Your task to perform on an android device: change the clock style Image 0: 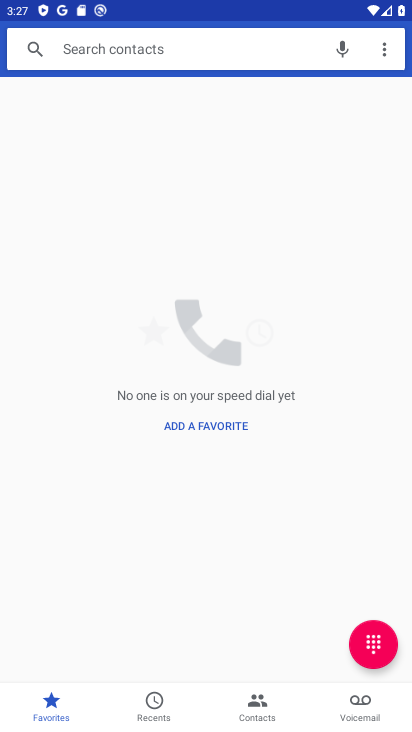
Step 0: press home button
Your task to perform on an android device: change the clock style Image 1: 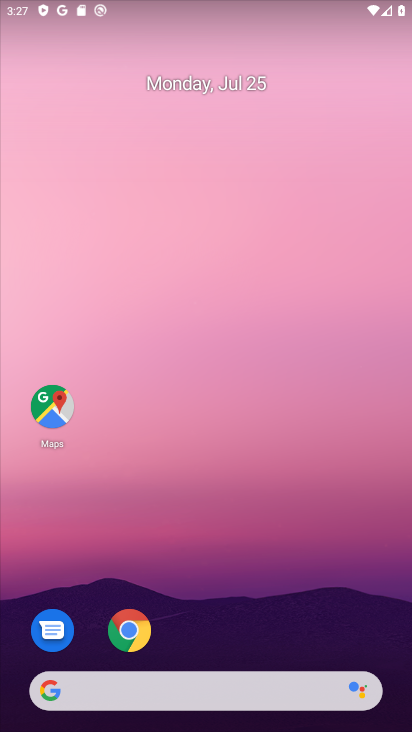
Step 1: drag from (165, 695) to (234, 124)
Your task to perform on an android device: change the clock style Image 2: 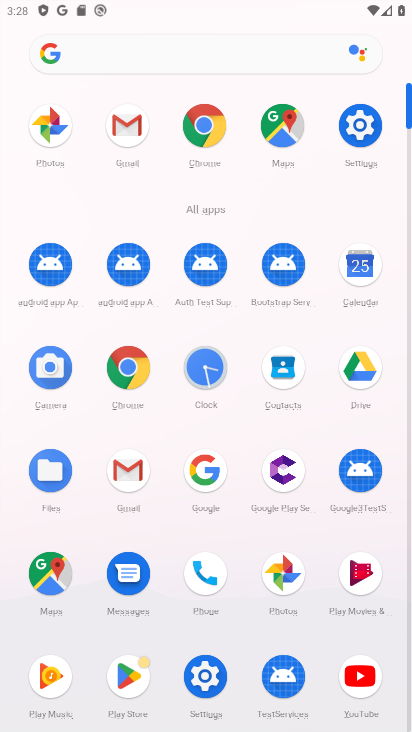
Step 2: click (203, 367)
Your task to perform on an android device: change the clock style Image 3: 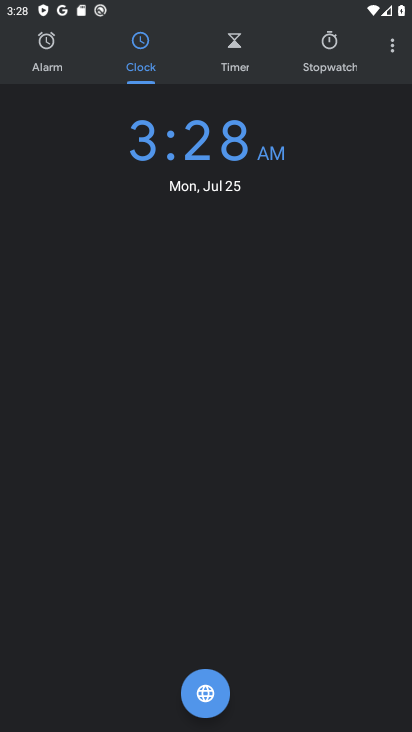
Step 3: click (392, 44)
Your task to perform on an android device: change the clock style Image 4: 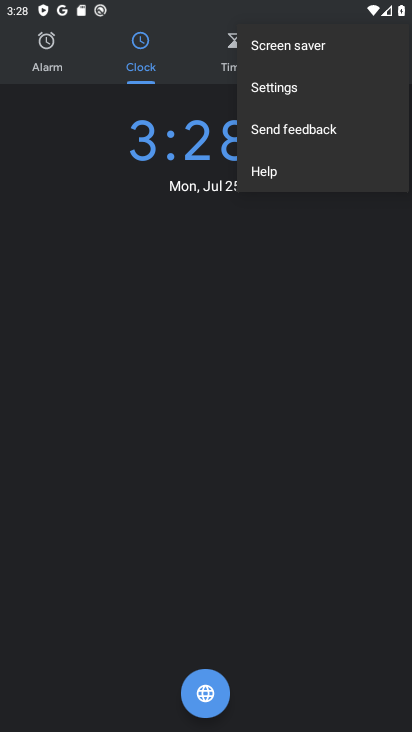
Step 4: click (288, 94)
Your task to perform on an android device: change the clock style Image 5: 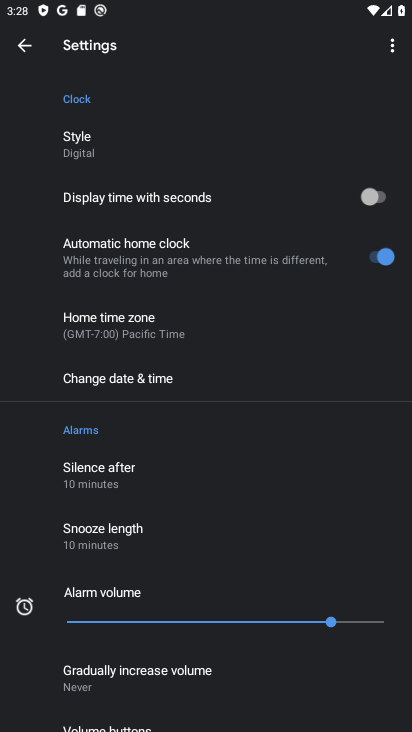
Step 5: click (94, 159)
Your task to perform on an android device: change the clock style Image 6: 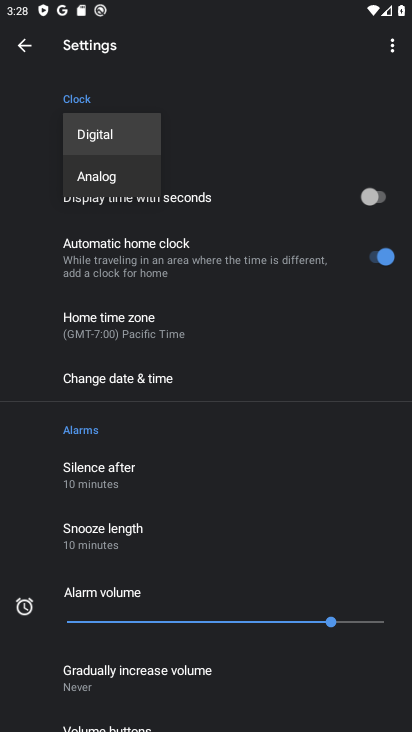
Step 6: click (88, 172)
Your task to perform on an android device: change the clock style Image 7: 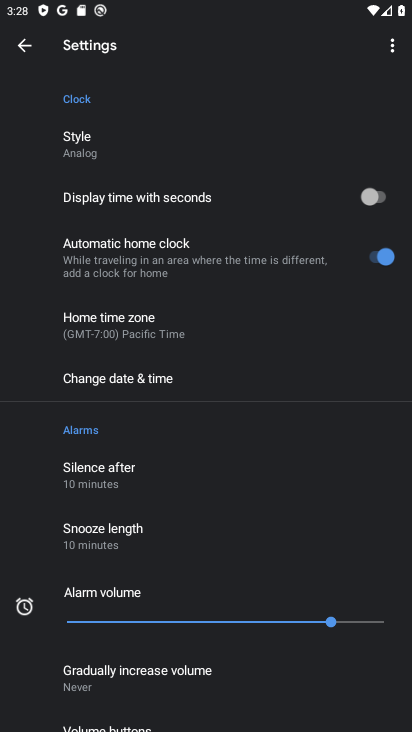
Step 7: task complete